Your task to perform on an android device: turn off improve location accuracy Image 0: 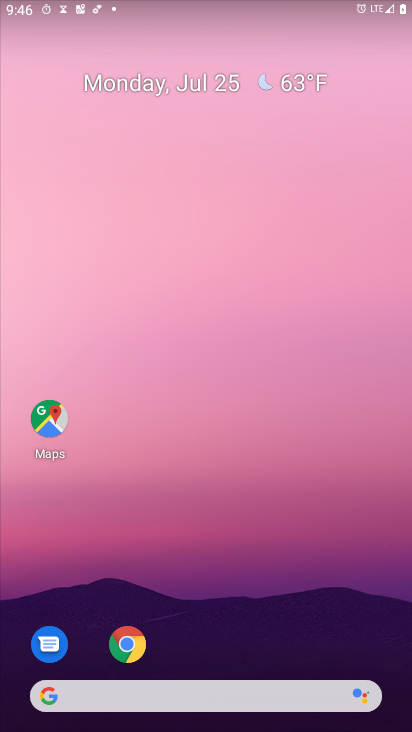
Step 0: drag from (244, 677) to (257, 175)
Your task to perform on an android device: turn off improve location accuracy Image 1: 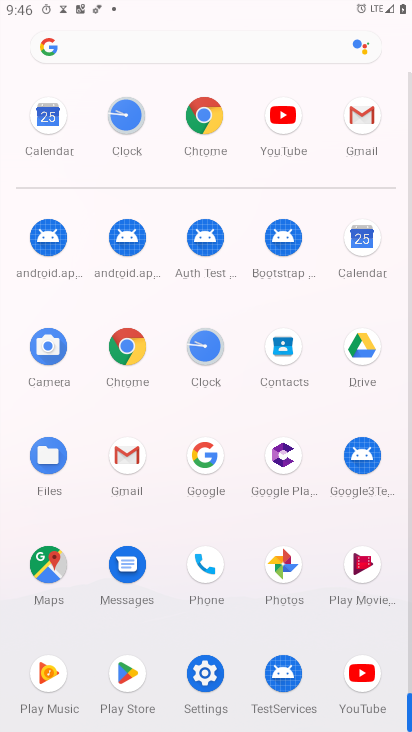
Step 1: click (208, 672)
Your task to perform on an android device: turn off improve location accuracy Image 2: 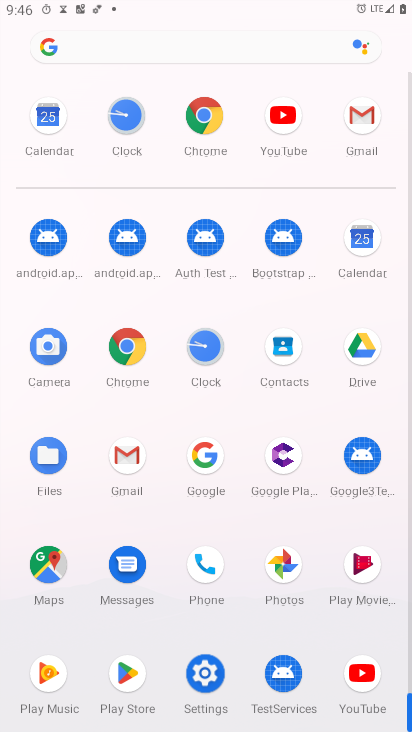
Step 2: click (208, 672)
Your task to perform on an android device: turn off improve location accuracy Image 3: 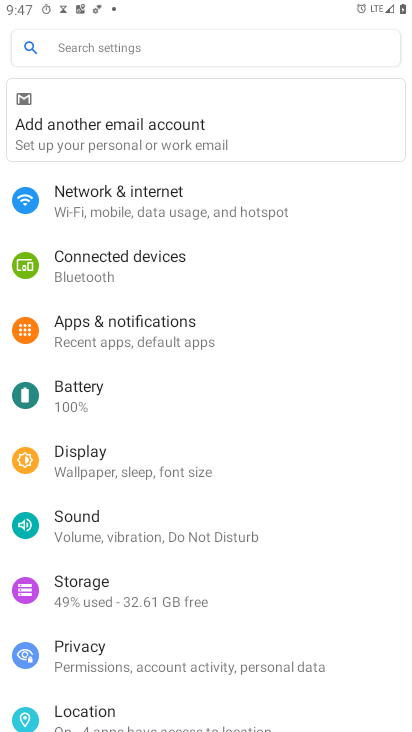
Step 3: drag from (102, 650) to (99, 356)
Your task to perform on an android device: turn off improve location accuracy Image 4: 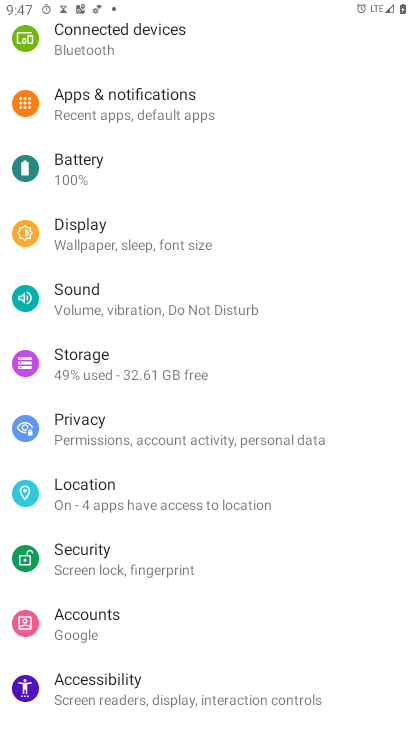
Step 4: drag from (110, 597) to (130, 354)
Your task to perform on an android device: turn off improve location accuracy Image 5: 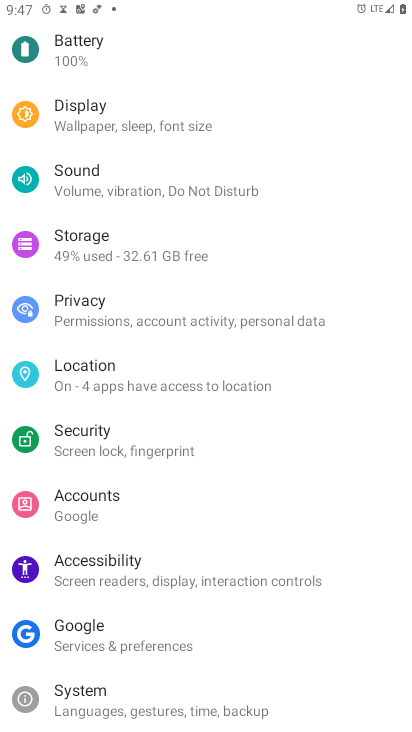
Step 5: click (89, 375)
Your task to perform on an android device: turn off improve location accuracy Image 6: 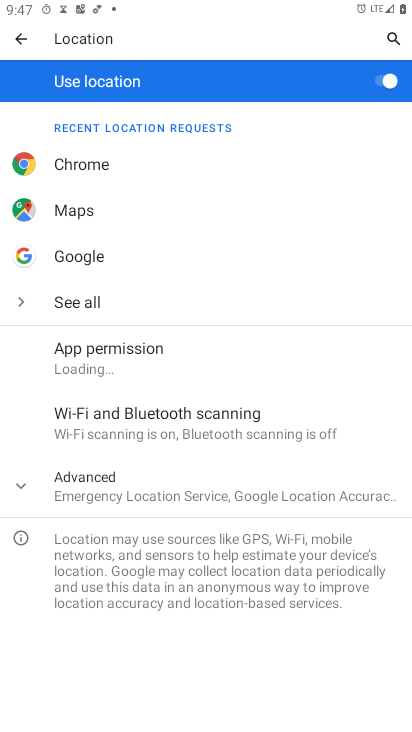
Step 6: click (377, 81)
Your task to perform on an android device: turn off improve location accuracy Image 7: 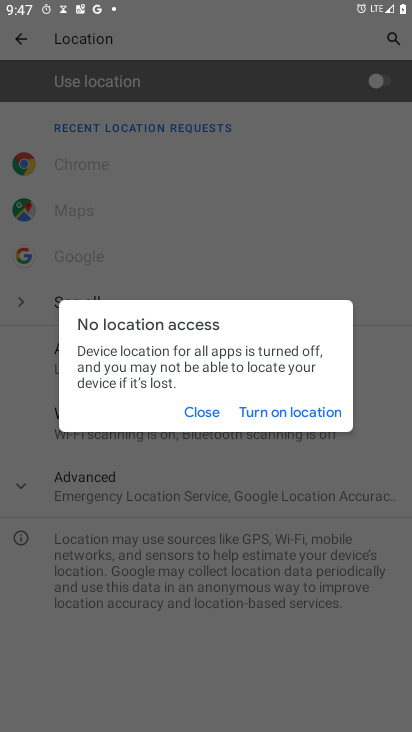
Step 7: click (369, 77)
Your task to perform on an android device: turn off improve location accuracy Image 8: 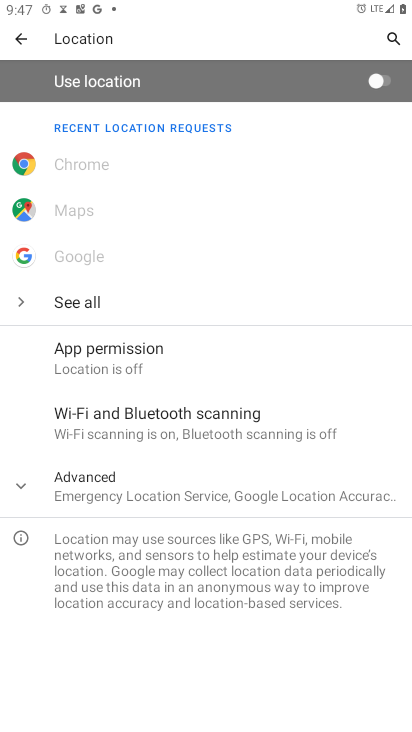
Step 8: click (369, 74)
Your task to perform on an android device: turn off improve location accuracy Image 9: 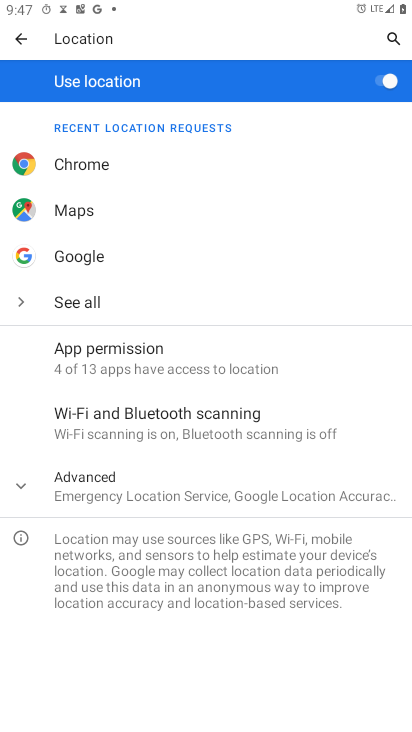
Step 9: click (99, 489)
Your task to perform on an android device: turn off improve location accuracy Image 10: 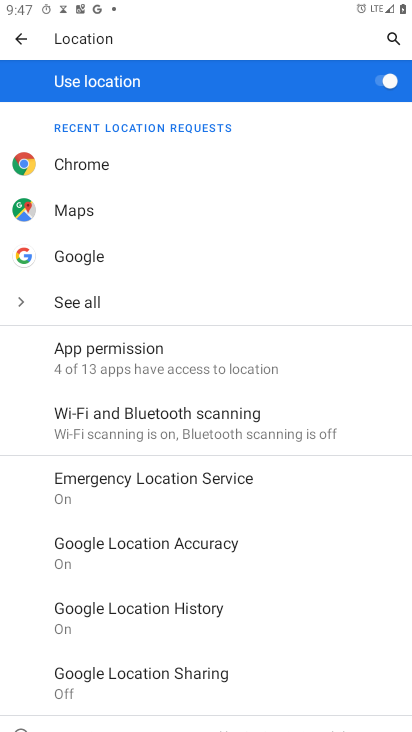
Step 10: click (163, 538)
Your task to perform on an android device: turn off improve location accuracy Image 11: 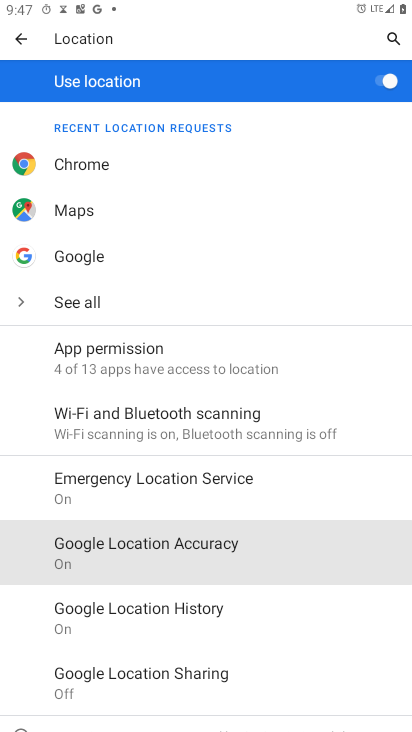
Step 11: click (172, 545)
Your task to perform on an android device: turn off improve location accuracy Image 12: 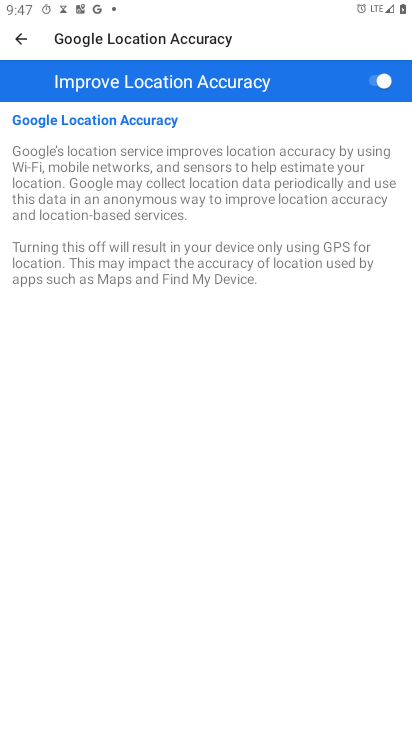
Step 12: click (386, 81)
Your task to perform on an android device: turn off improve location accuracy Image 13: 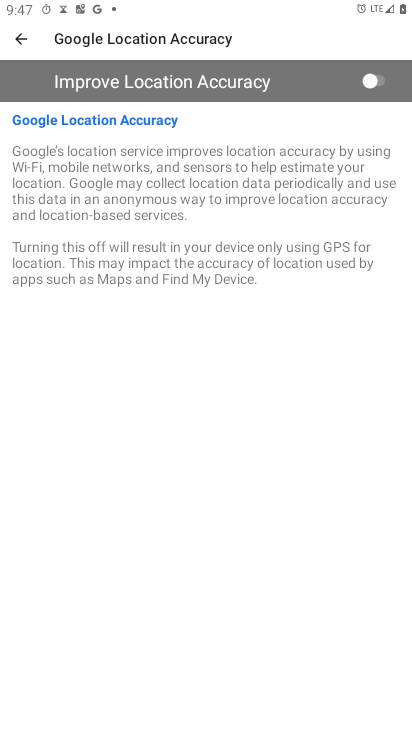
Step 13: task complete